Your task to perform on an android device: turn smart compose on in the gmail app Image 0: 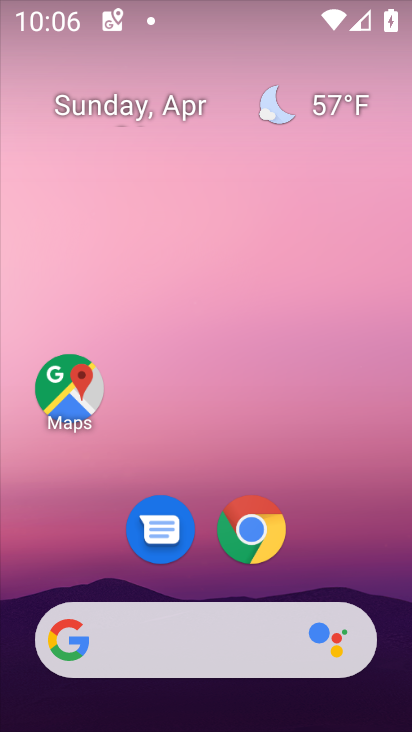
Step 0: drag from (351, 530) to (250, 41)
Your task to perform on an android device: turn smart compose on in the gmail app Image 1: 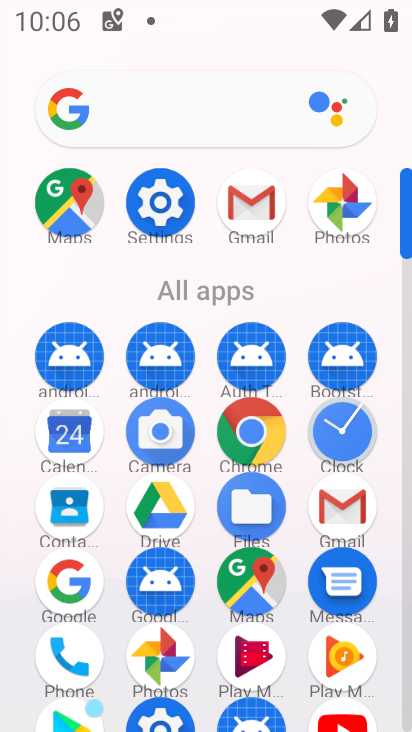
Step 1: click (256, 216)
Your task to perform on an android device: turn smart compose on in the gmail app Image 2: 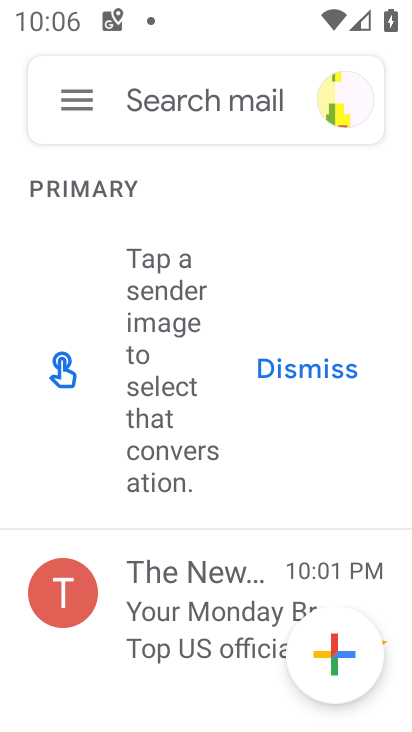
Step 2: click (84, 98)
Your task to perform on an android device: turn smart compose on in the gmail app Image 3: 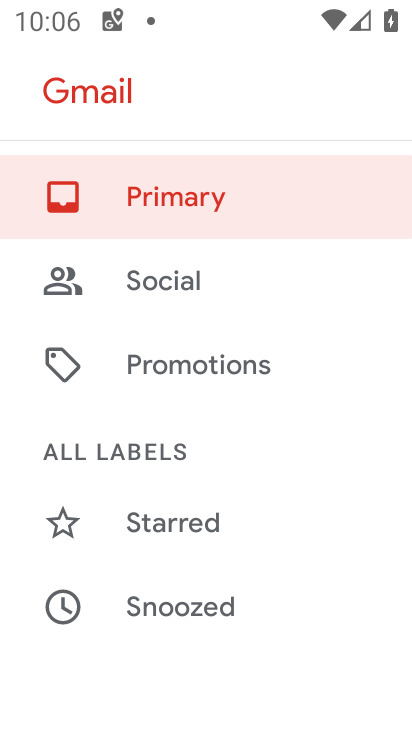
Step 3: drag from (262, 672) to (206, 140)
Your task to perform on an android device: turn smart compose on in the gmail app Image 4: 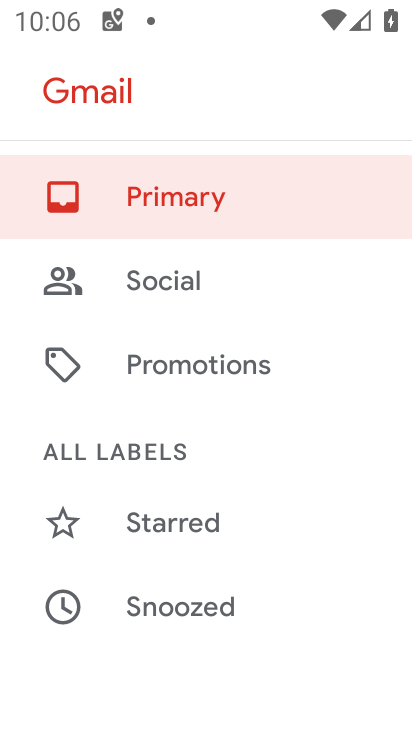
Step 4: drag from (200, 568) to (206, 78)
Your task to perform on an android device: turn smart compose on in the gmail app Image 5: 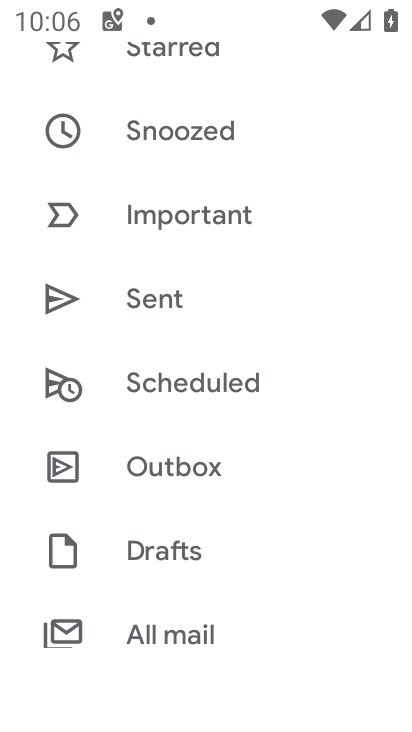
Step 5: drag from (189, 603) to (191, 90)
Your task to perform on an android device: turn smart compose on in the gmail app Image 6: 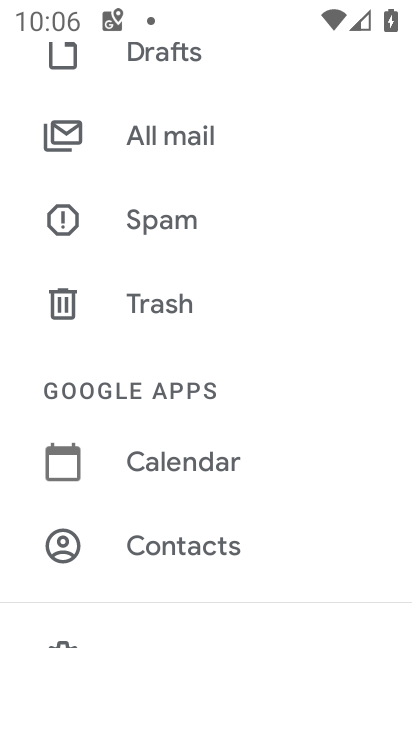
Step 6: drag from (188, 617) to (196, 286)
Your task to perform on an android device: turn smart compose on in the gmail app Image 7: 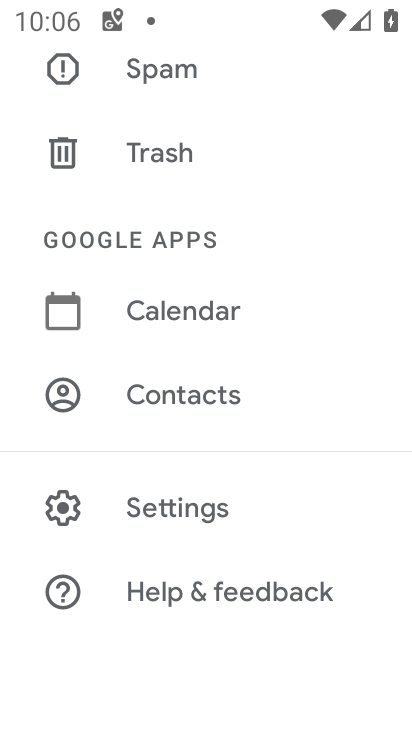
Step 7: click (169, 498)
Your task to perform on an android device: turn smart compose on in the gmail app Image 8: 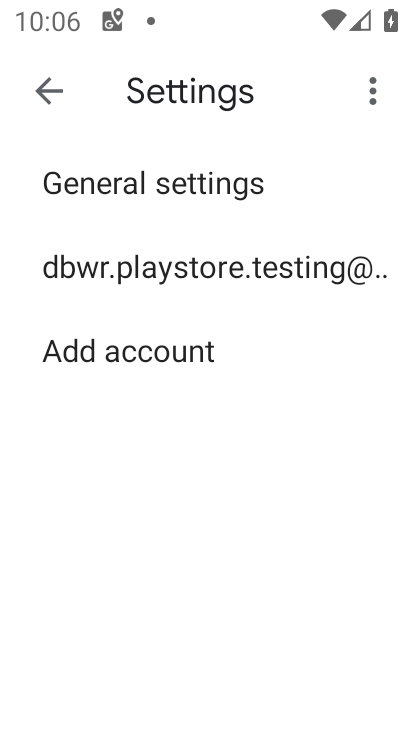
Step 8: click (146, 263)
Your task to perform on an android device: turn smart compose on in the gmail app Image 9: 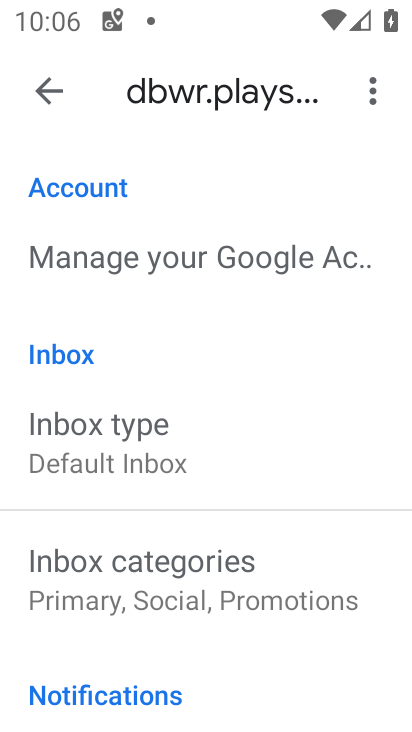
Step 9: drag from (191, 667) to (202, 191)
Your task to perform on an android device: turn smart compose on in the gmail app Image 10: 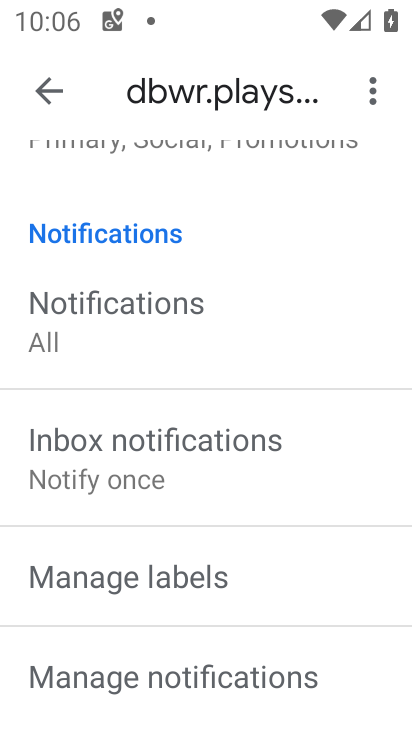
Step 10: drag from (161, 637) to (133, 174)
Your task to perform on an android device: turn smart compose on in the gmail app Image 11: 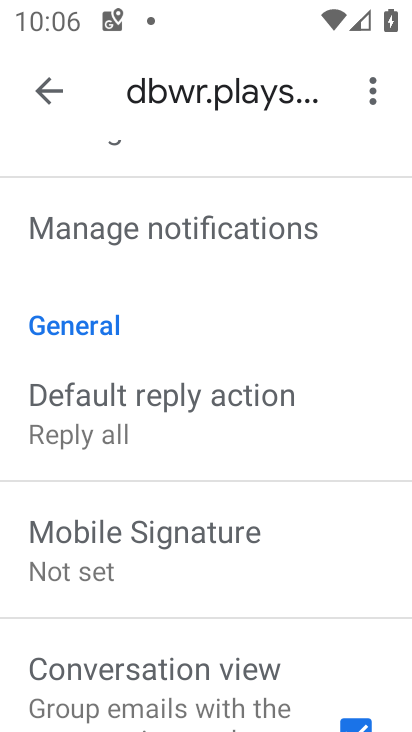
Step 11: drag from (132, 602) to (175, 160)
Your task to perform on an android device: turn smart compose on in the gmail app Image 12: 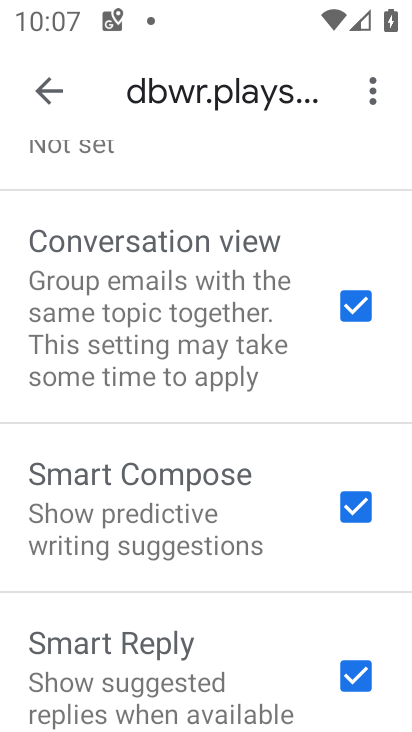
Step 12: click (367, 514)
Your task to perform on an android device: turn smart compose on in the gmail app Image 13: 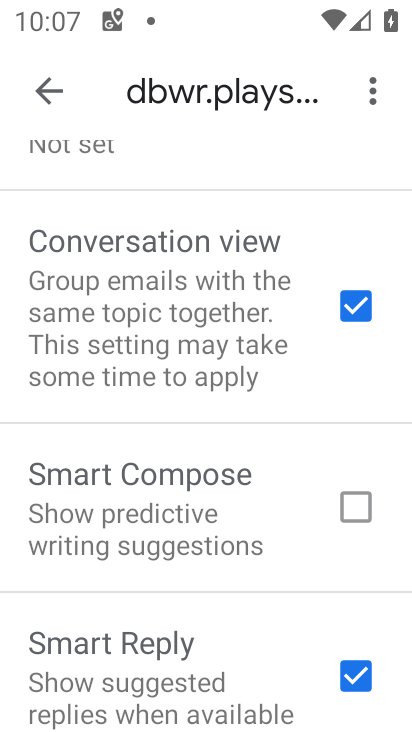
Step 13: task complete